Your task to perform on an android device: check out phone information Image 0: 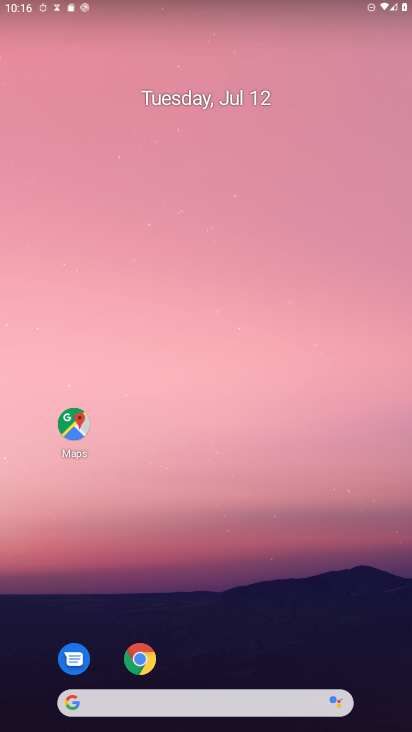
Step 0: drag from (201, 698) to (141, 204)
Your task to perform on an android device: check out phone information Image 1: 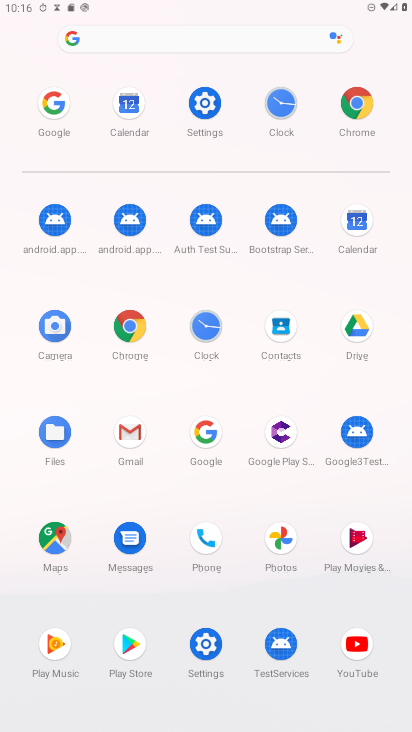
Step 1: click (204, 106)
Your task to perform on an android device: check out phone information Image 2: 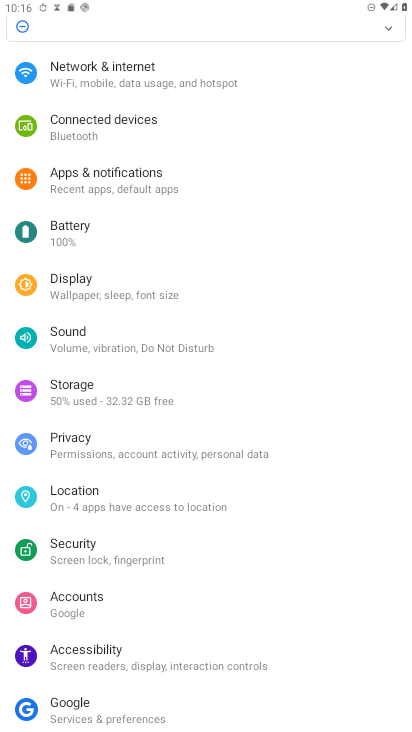
Step 2: drag from (108, 370) to (158, 301)
Your task to perform on an android device: check out phone information Image 3: 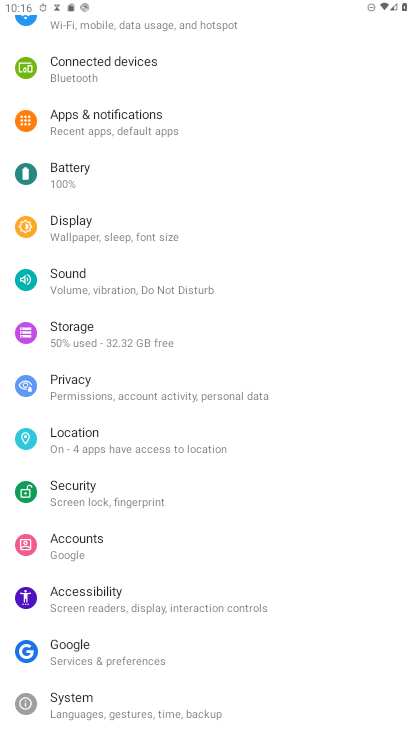
Step 3: drag from (148, 482) to (193, 397)
Your task to perform on an android device: check out phone information Image 4: 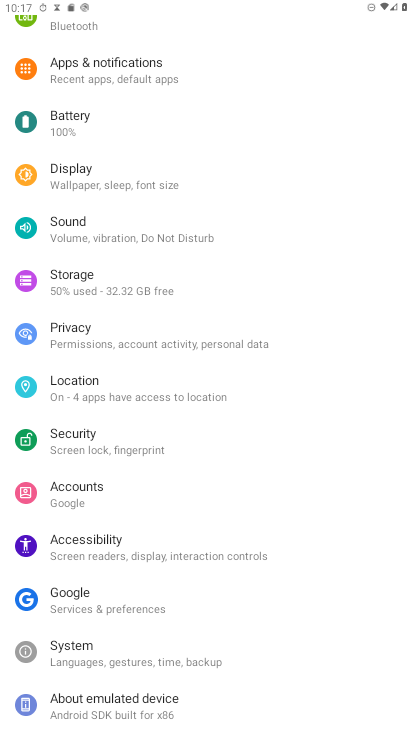
Step 4: click (125, 705)
Your task to perform on an android device: check out phone information Image 5: 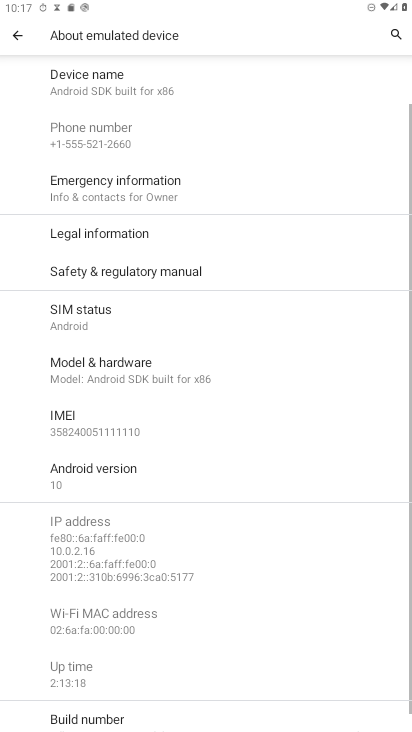
Step 5: task complete